Your task to perform on an android device: turn on wifi Image 0: 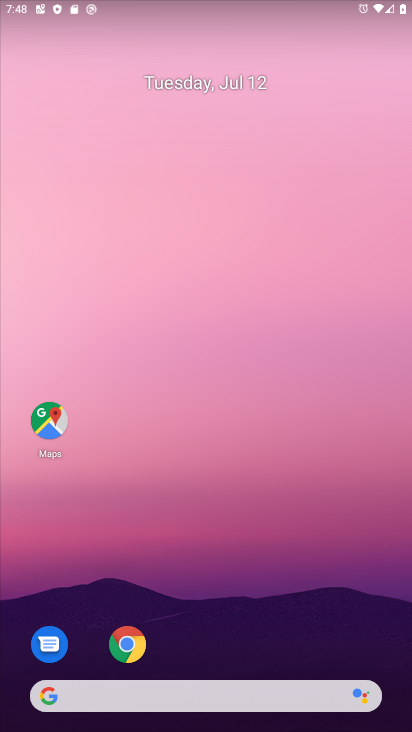
Step 0: drag from (153, 669) to (199, 418)
Your task to perform on an android device: turn on wifi Image 1: 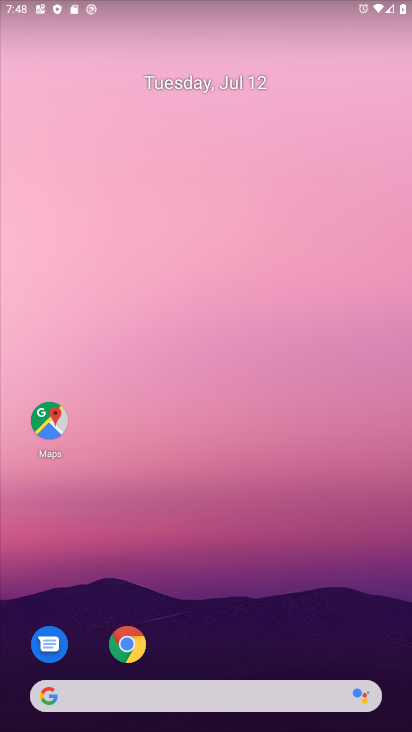
Step 1: drag from (185, 654) to (185, 375)
Your task to perform on an android device: turn on wifi Image 2: 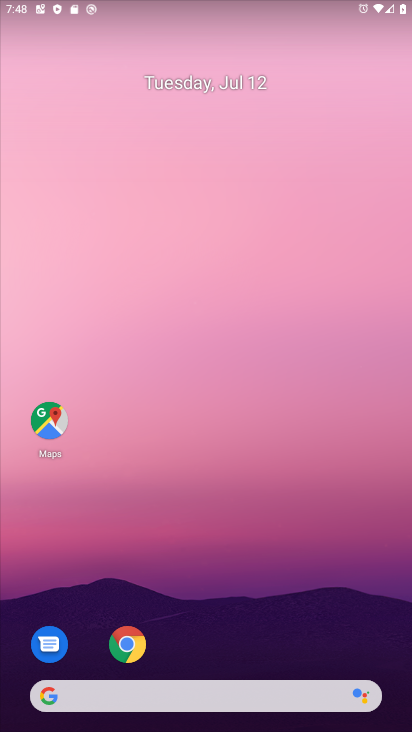
Step 2: drag from (142, 691) to (183, 399)
Your task to perform on an android device: turn on wifi Image 3: 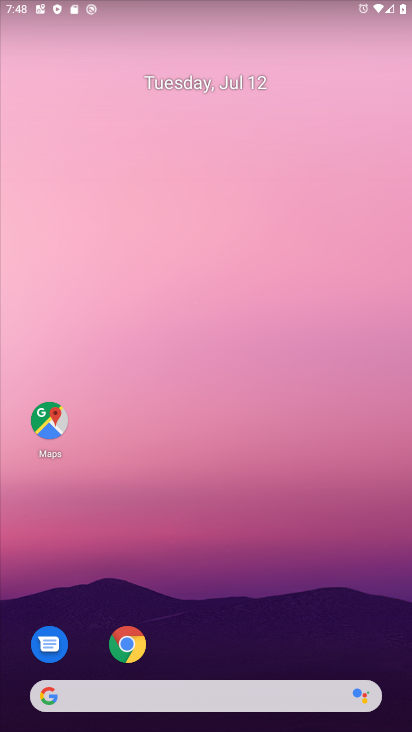
Step 3: drag from (112, 618) to (153, 342)
Your task to perform on an android device: turn on wifi Image 4: 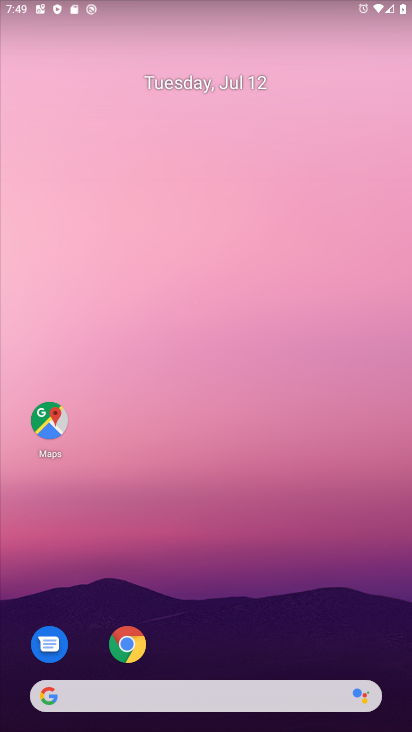
Step 4: drag from (151, 683) to (236, 328)
Your task to perform on an android device: turn on wifi Image 5: 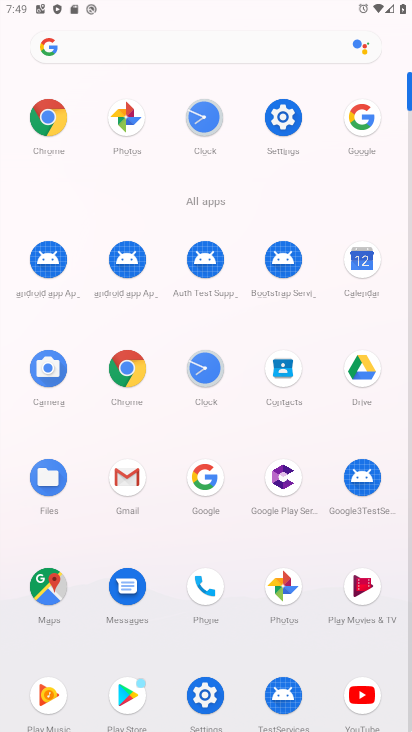
Step 5: click (268, 119)
Your task to perform on an android device: turn on wifi Image 6: 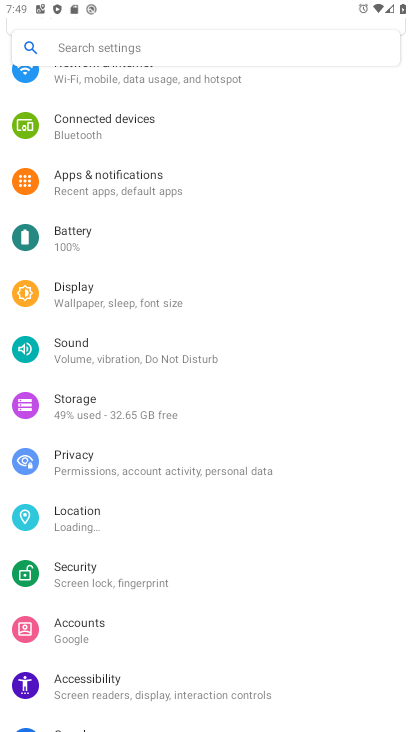
Step 6: drag from (100, 95) to (83, 359)
Your task to perform on an android device: turn on wifi Image 7: 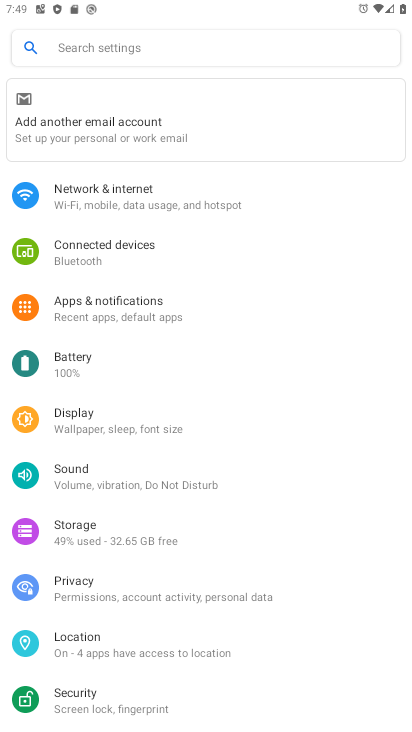
Step 7: click (106, 197)
Your task to perform on an android device: turn on wifi Image 8: 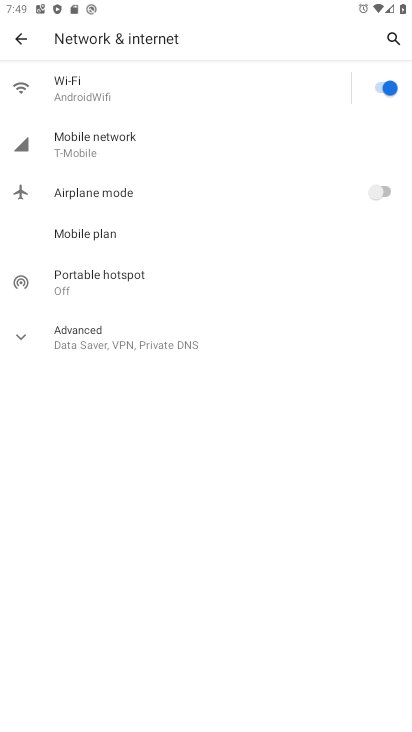
Step 8: task complete